Your task to perform on an android device: Show me popular games on the Play Store Image 0: 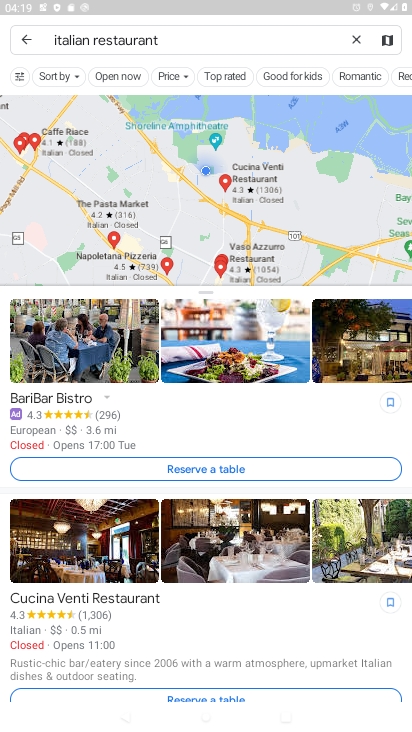
Step 0: press home button
Your task to perform on an android device: Show me popular games on the Play Store Image 1: 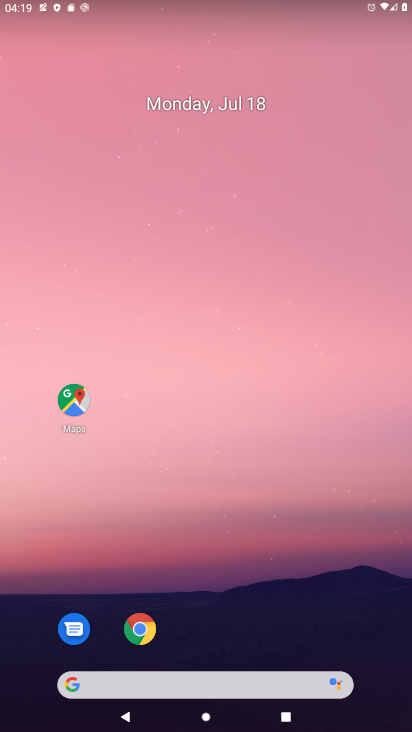
Step 1: drag from (403, 685) to (300, 41)
Your task to perform on an android device: Show me popular games on the Play Store Image 2: 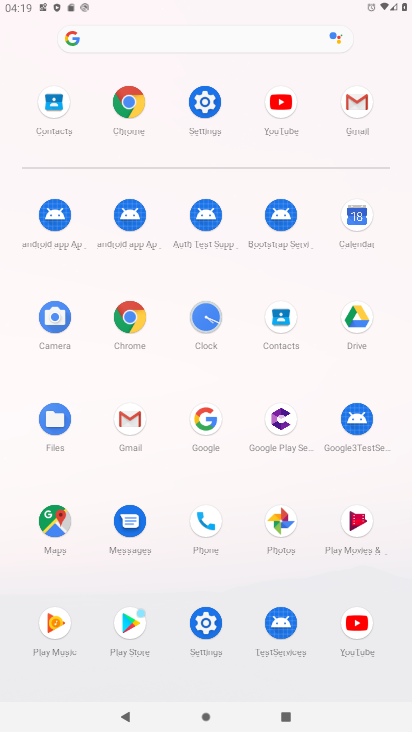
Step 2: click (119, 621)
Your task to perform on an android device: Show me popular games on the Play Store Image 3: 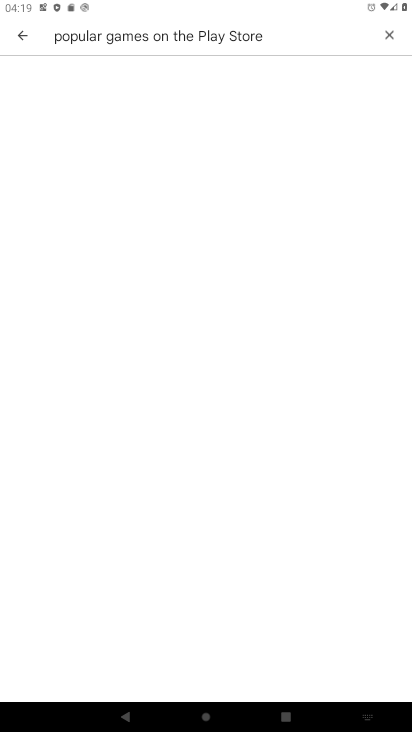
Step 3: task complete